Your task to perform on an android device: check out phone information Image 0: 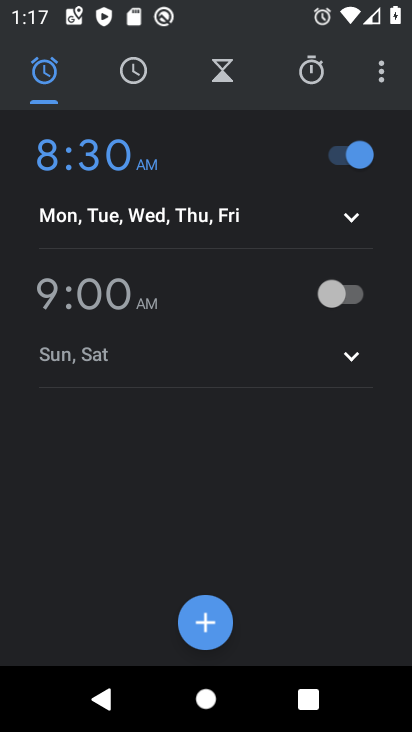
Step 0: press home button
Your task to perform on an android device: check out phone information Image 1: 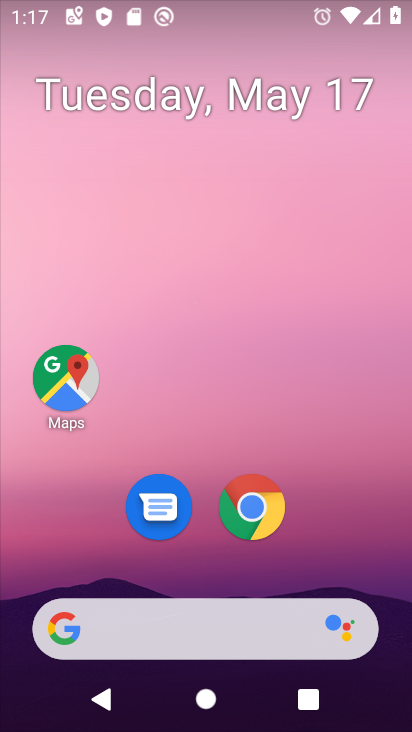
Step 1: drag from (350, 548) to (340, 182)
Your task to perform on an android device: check out phone information Image 2: 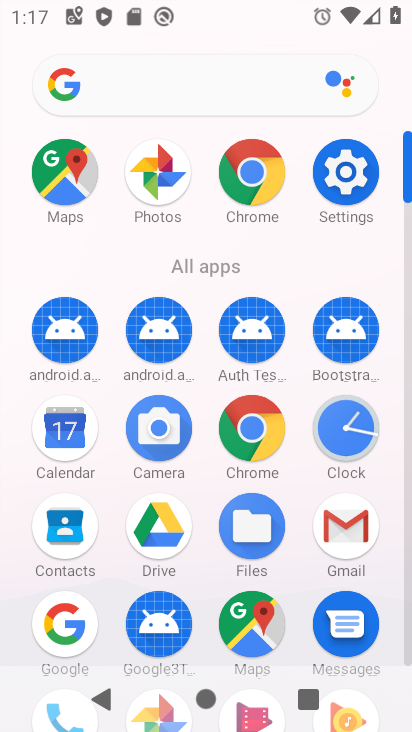
Step 2: click (342, 157)
Your task to perform on an android device: check out phone information Image 3: 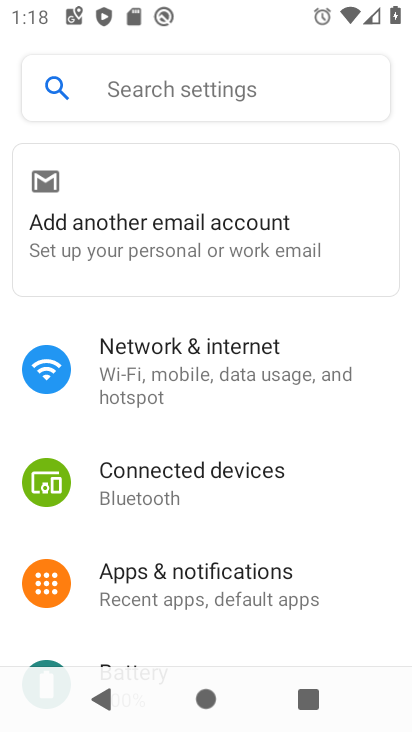
Step 3: drag from (247, 583) to (239, 217)
Your task to perform on an android device: check out phone information Image 4: 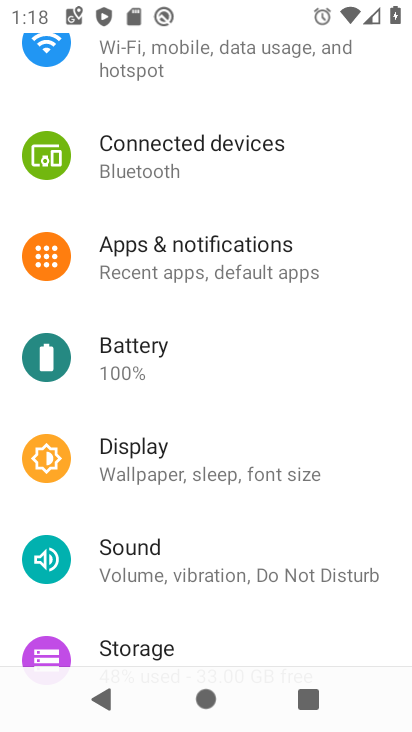
Step 4: drag from (205, 601) to (221, 213)
Your task to perform on an android device: check out phone information Image 5: 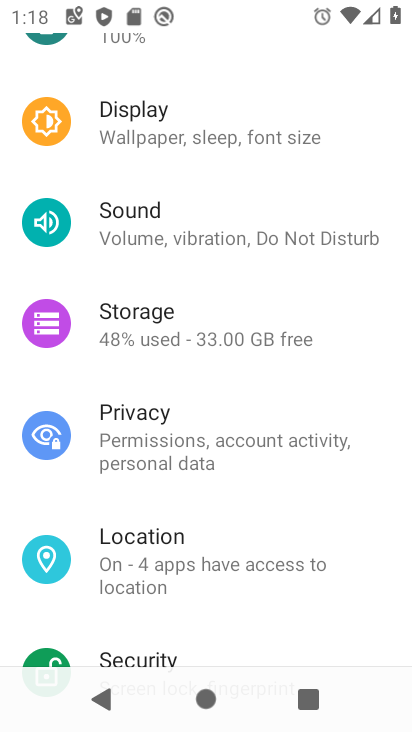
Step 5: drag from (184, 580) to (225, 246)
Your task to perform on an android device: check out phone information Image 6: 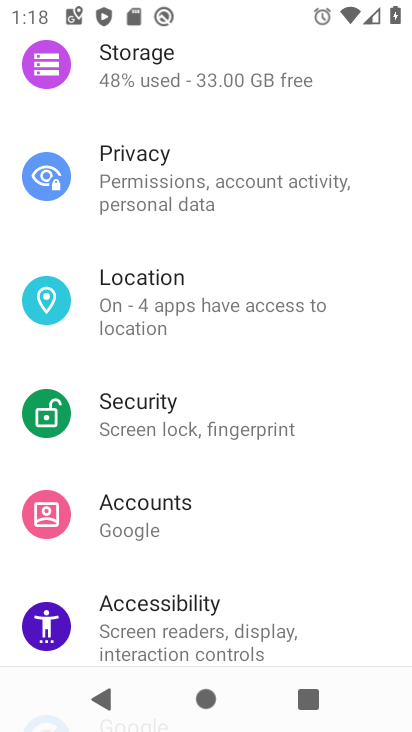
Step 6: drag from (174, 598) to (229, 270)
Your task to perform on an android device: check out phone information Image 7: 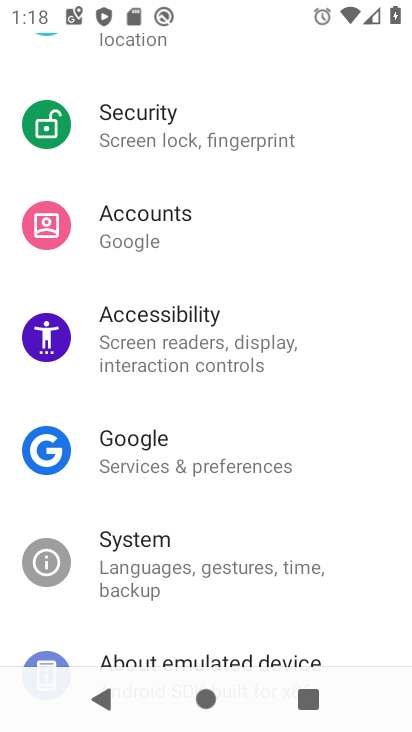
Step 7: drag from (188, 620) to (229, 316)
Your task to perform on an android device: check out phone information Image 8: 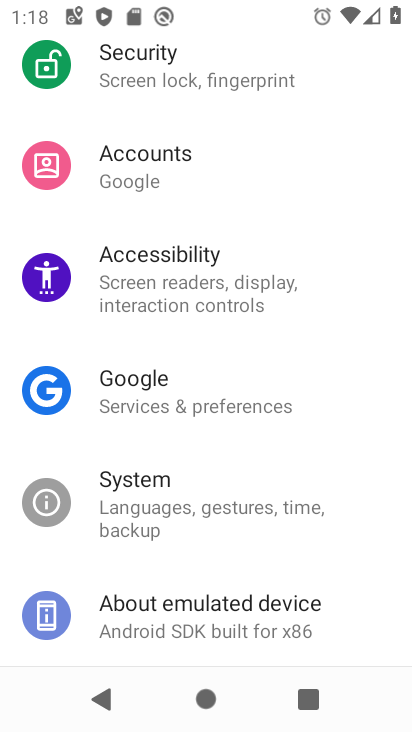
Step 8: click (189, 607)
Your task to perform on an android device: check out phone information Image 9: 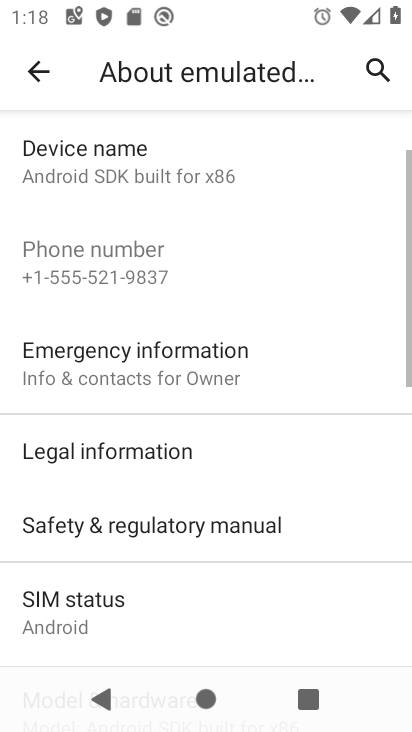
Step 9: task complete